Your task to perform on an android device: find snoozed emails in the gmail app Image 0: 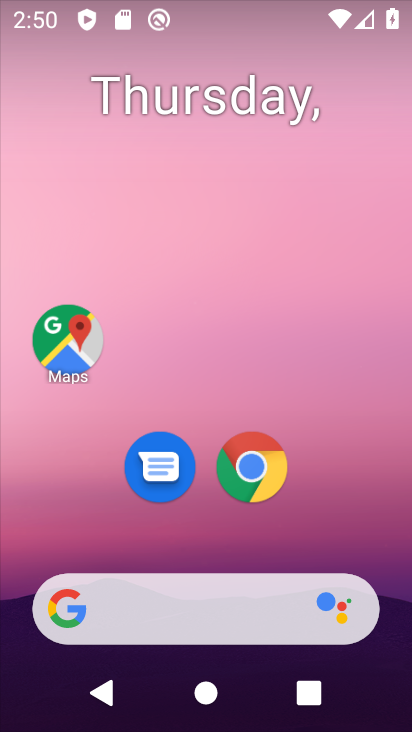
Step 0: drag from (207, 586) to (227, 116)
Your task to perform on an android device: find snoozed emails in the gmail app Image 1: 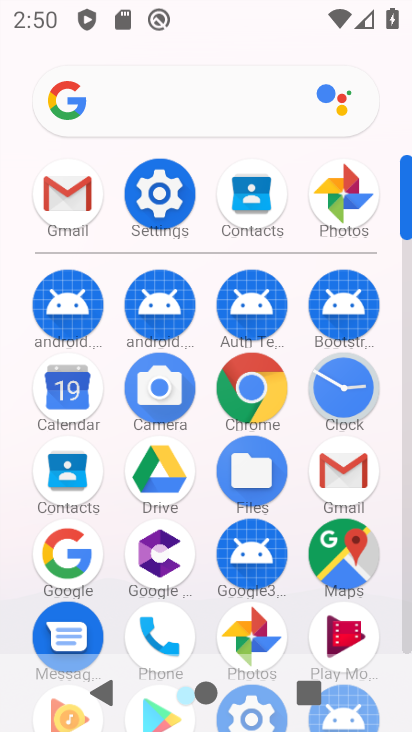
Step 1: click (66, 557)
Your task to perform on an android device: find snoozed emails in the gmail app Image 2: 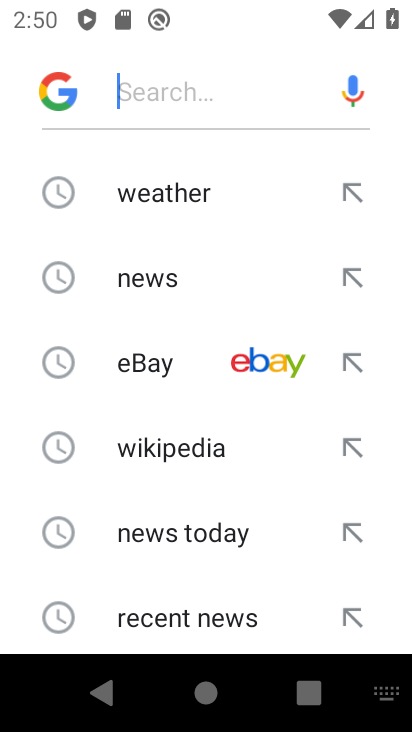
Step 2: press home button
Your task to perform on an android device: find snoozed emails in the gmail app Image 3: 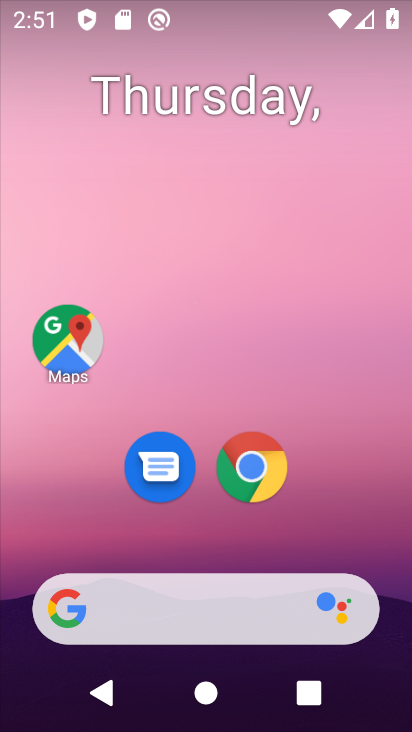
Step 3: drag from (191, 426) to (162, 1)
Your task to perform on an android device: find snoozed emails in the gmail app Image 4: 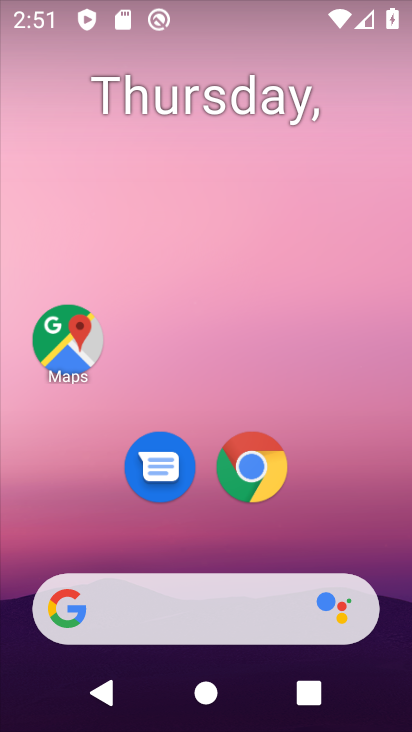
Step 4: drag from (212, 594) to (212, 133)
Your task to perform on an android device: find snoozed emails in the gmail app Image 5: 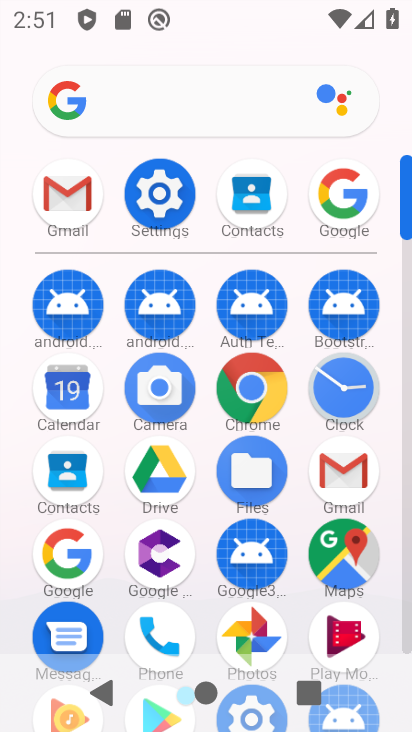
Step 5: click (335, 482)
Your task to perform on an android device: find snoozed emails in the gmail app Image 6: 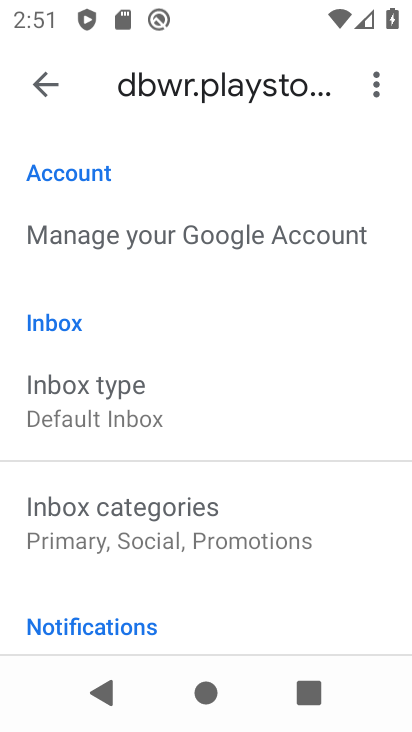
Step 6: click (50, 71)
Your task to perform on an android device: find snoozed emails in the gmail app Image 7: 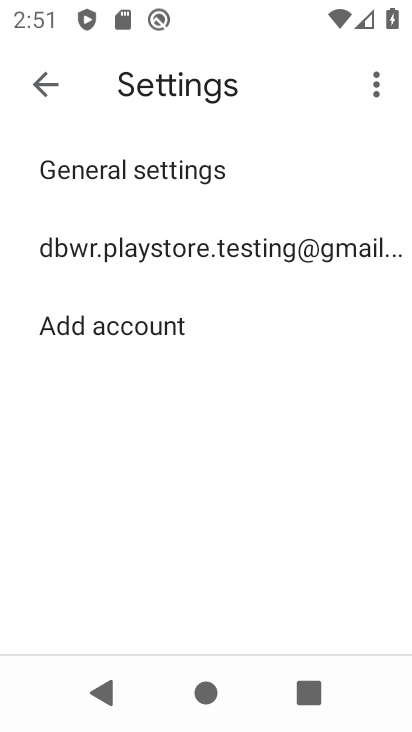
Step 7: click (50, 71)
Your task to perform on an android device: find snoozed emails in the gmail app Image 8: 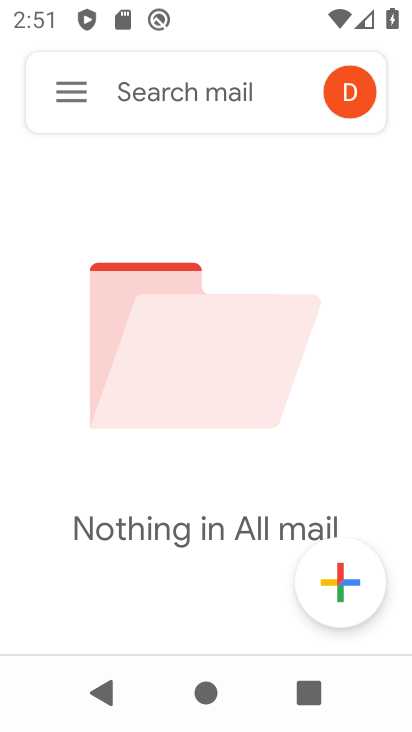
Step 8: click (52, 87)
Your task to perform on an android device: find snoozed emails in the gmail app Image 9: 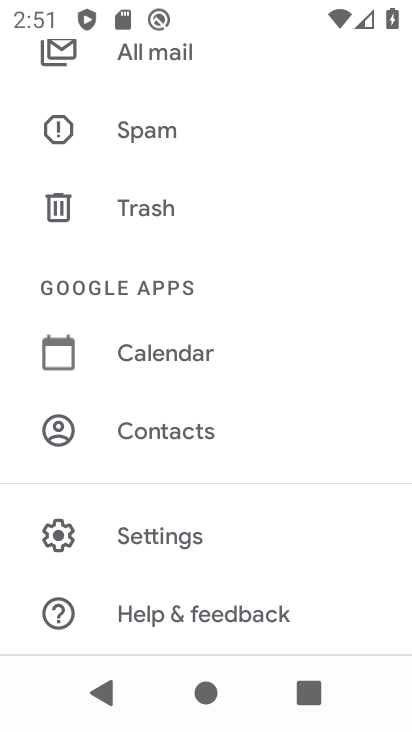
Step 9: drag from (143, 138) to (170, 614)
Your task to perform on an android device: find snoozed emails in the gmail app Image 10: 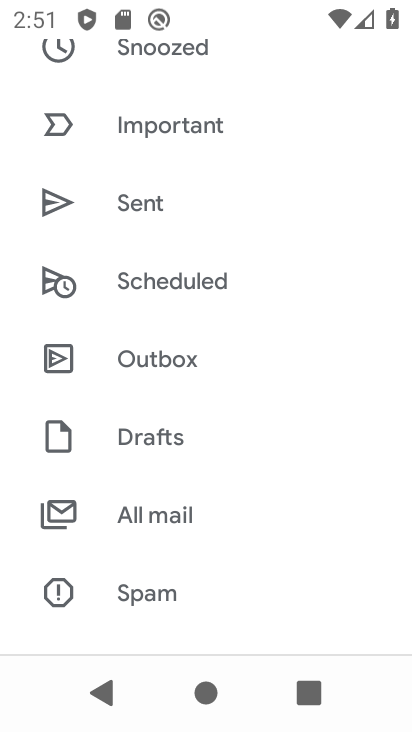
Step 10: click (145, 51)
Your task to perform on an android device: find snoozed emails in the gmail app Image 11: 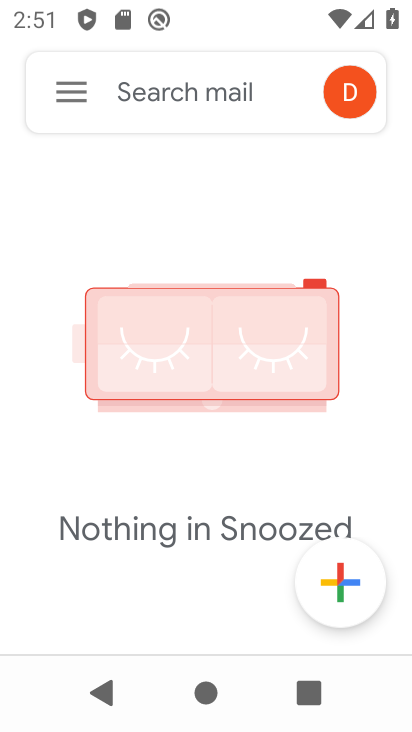
Step 11: task complete